Your task to perform on an android device: change notification settings in the gmail app Image 0: 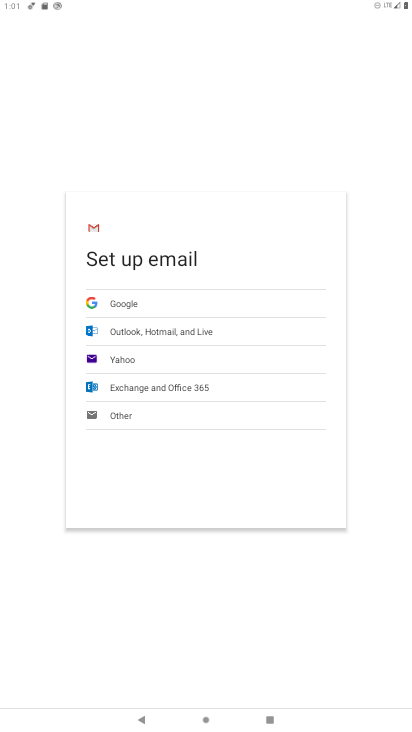
Step 0: press home button
Your task to perform on an android device: change notification settings in the gmail app Image 1: 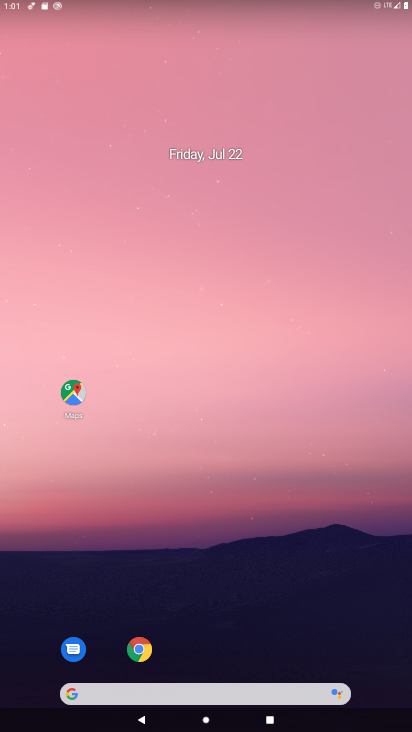
Step 1: drag from (233, 721) to (209, 170)
Your task to perform on an android device: change notification settings in the gmail app Image 2: 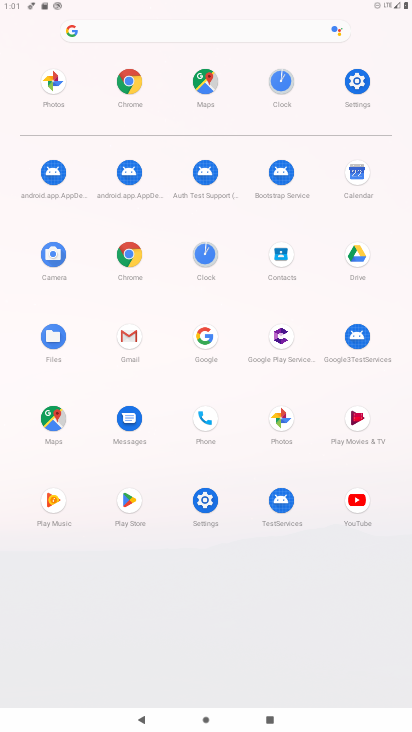
Step 2: click (125, 340)
Your task to perform on an android device: change notification settings in the gmail app Image 3: 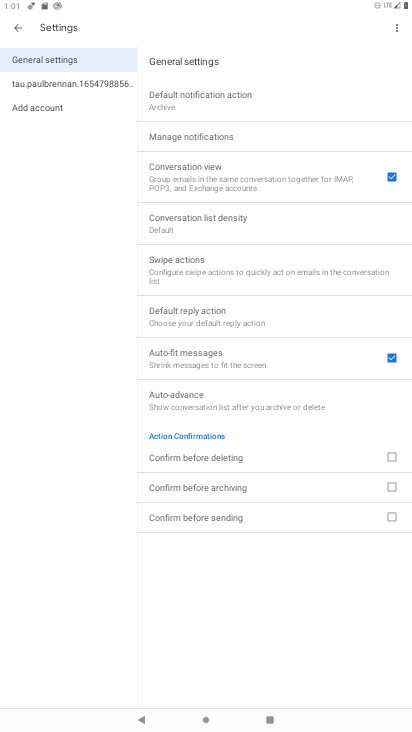
Step 3: click (60, 88)
Your task to perform on an android device: change notification settings in the gmail app Image 4: 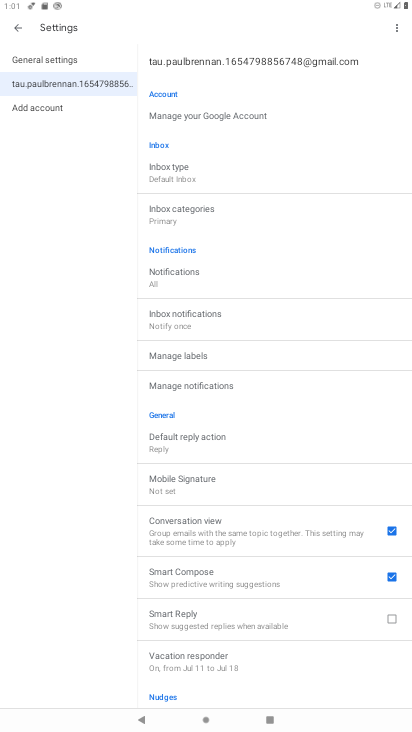
Step 4: click (176, 271)
Your task to perform on an android device: change notification settings in the gmail app Image 5: 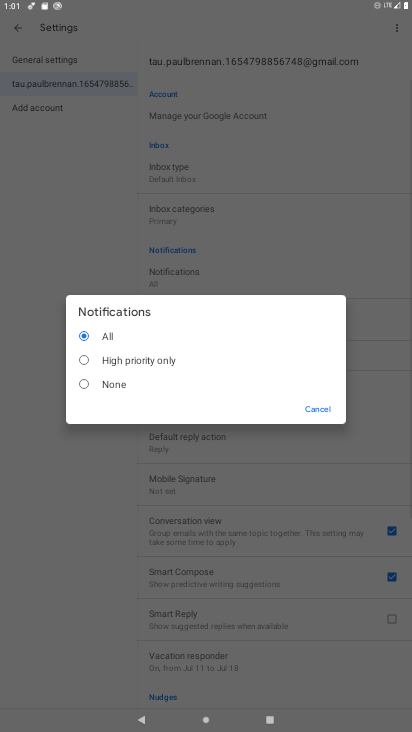
Step 5: click (83, 385)
Your task to perform on an android device: change notification settings in the gmail app Image 6: 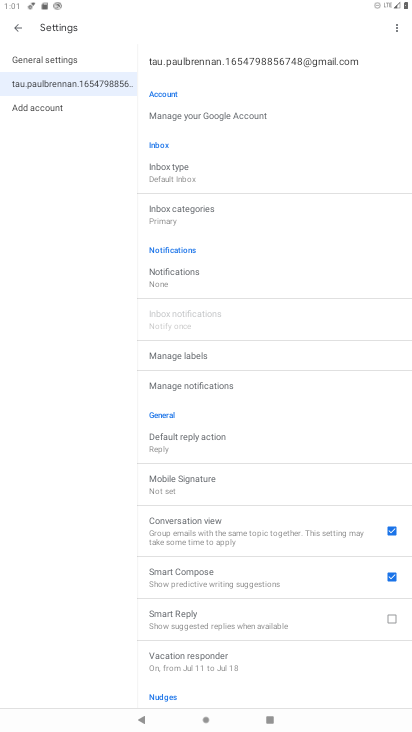
Step 6: task complete